Your task to perform on an android device: Search for pizza restaurants on Maps Image 0: 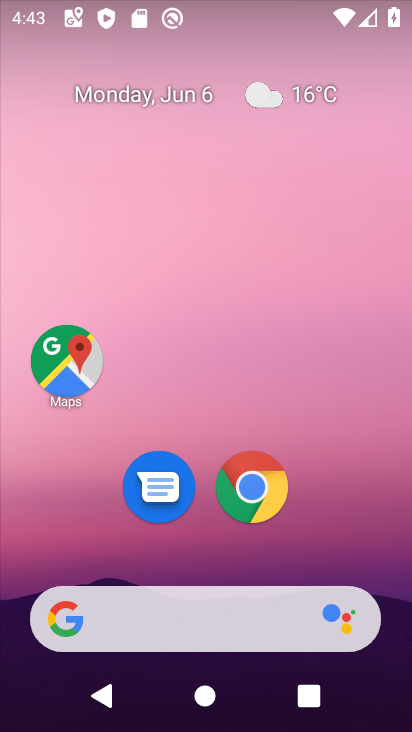
Step 0: click (62, 363)
Your task to perform on an android device: Search for pizza restaurants on Maps Image 1: 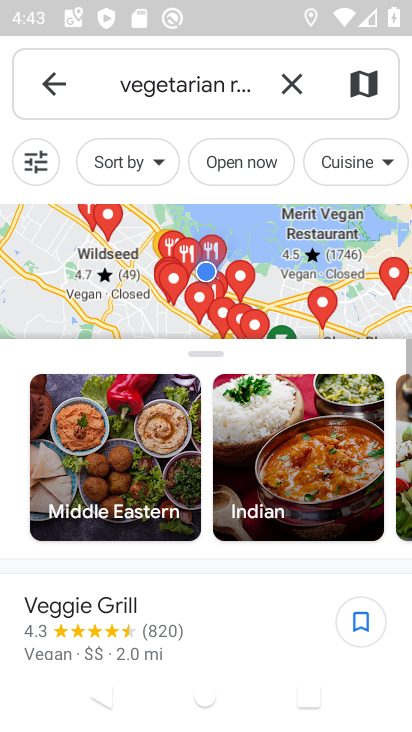
Step 1: click (287, 83)
Your task to perform on an android device: Search for pizza restaurants on Maps Image 2: 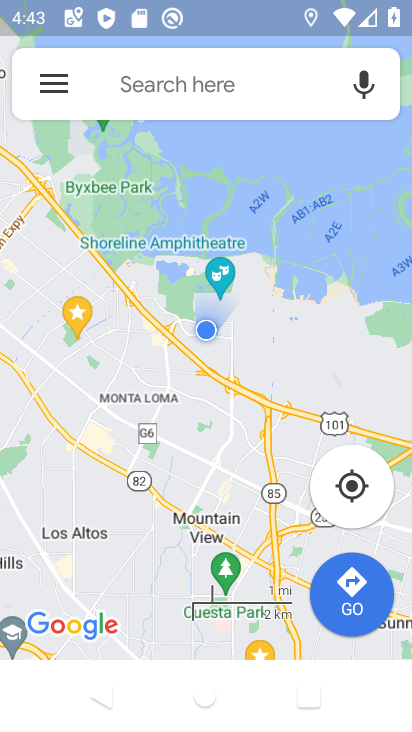
Step 2: click (233, 80)
Your task to perform on an android device: Search for pizza restaurants on Maps Image 3: 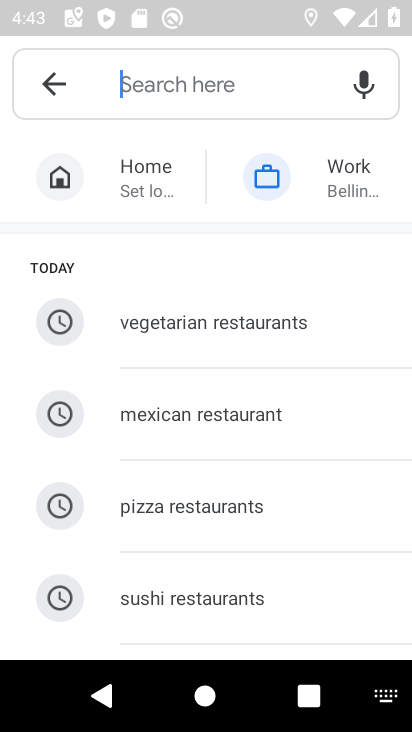
Step 3: click (175, 509)
Your task to perform on an android device: Search for pizza restaurants on Maps Image 4: 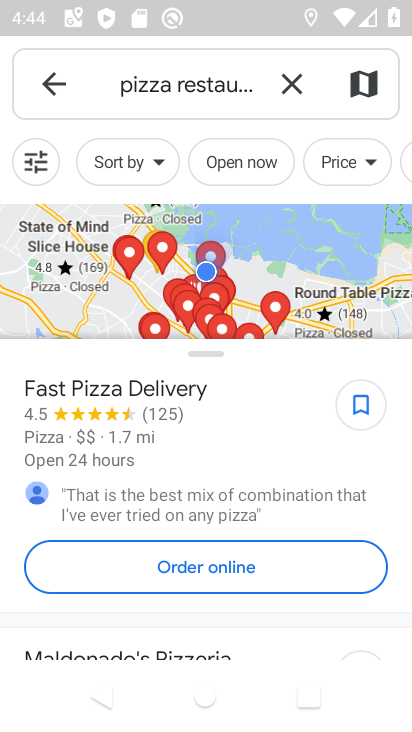
Step 4: task complete